Your task to perform on an android device: Go to notification settings Image 0: 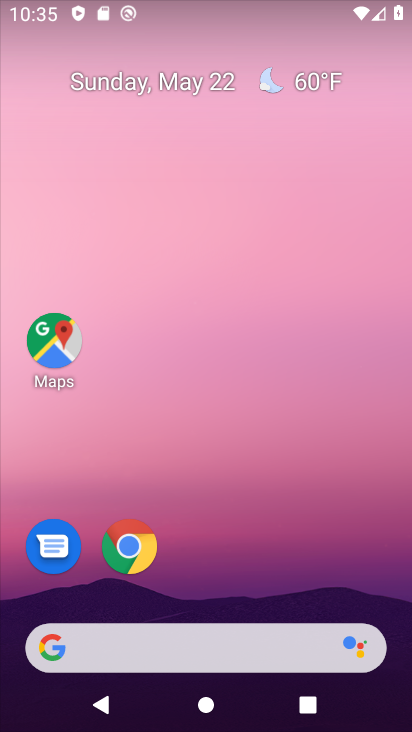
Step 0: drag from (226, 416) to (223, 232)
Your task to perform on an android device: Go to notification settings Image 1: 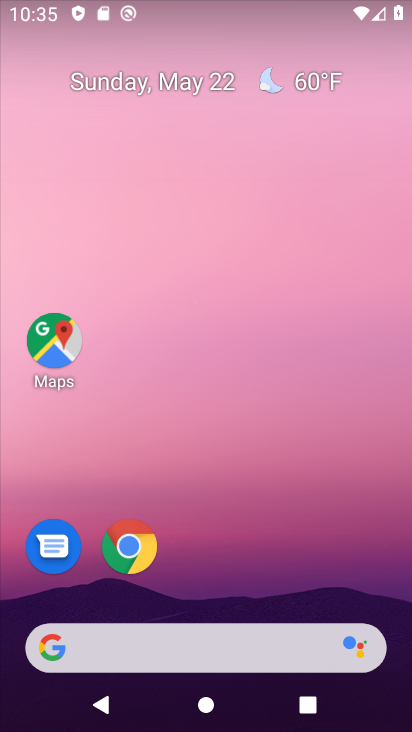
Step 1: drag from (226, 720) to (221, 63)
Your task to perform on an android device: Go to notification settings Image 2: 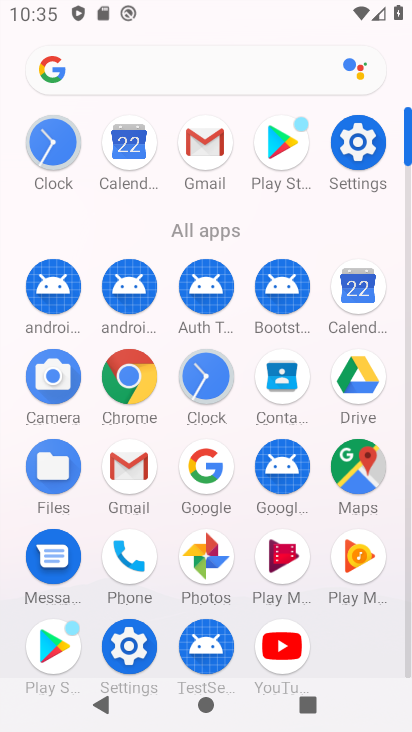
Step 2: click (352, 144)
Your task to perform on an android device: Go to notification settings Image 3: 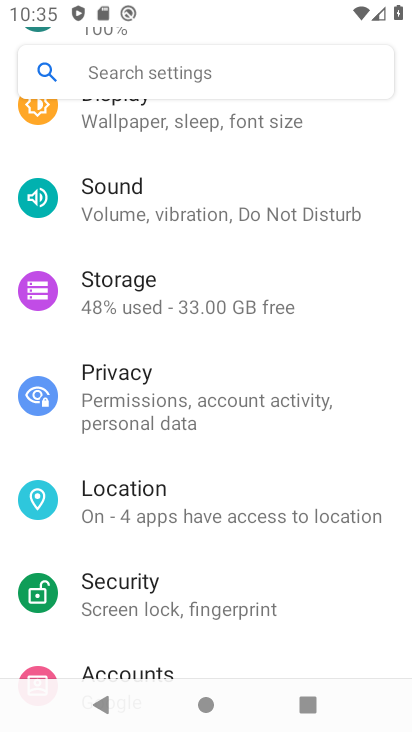
Step 3: drag from (144, 239) to (145, 589)
Your task to perform on an android device: Go to notification settings Image 4: 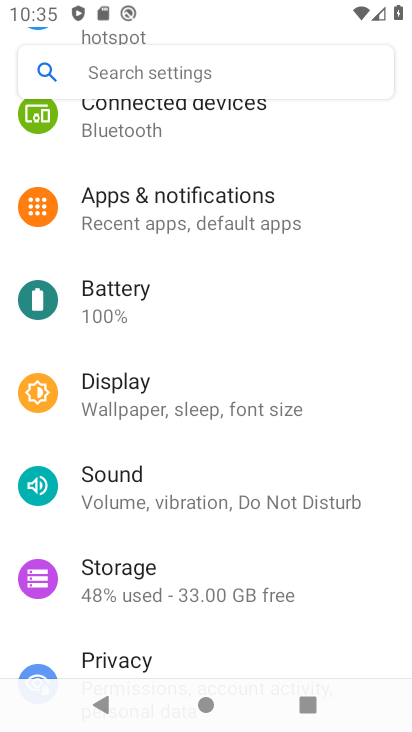
Step 4: click (175, 203)
Your task to perform on an android device: Go to notification settings Image 5: 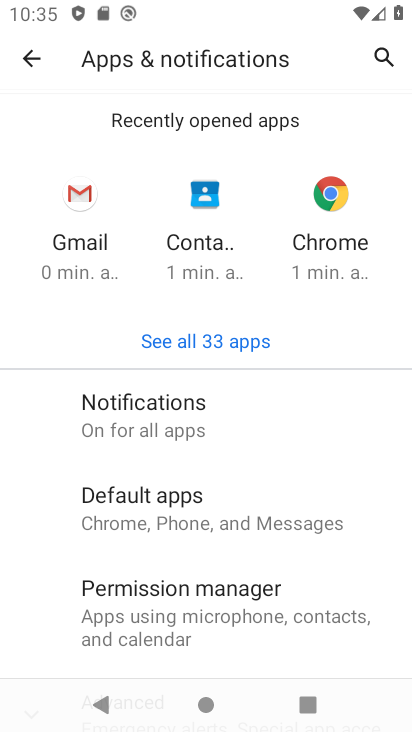
Step 5: click (154, 437)
Your task to perform on an android device: Go to notification settings Image 6: 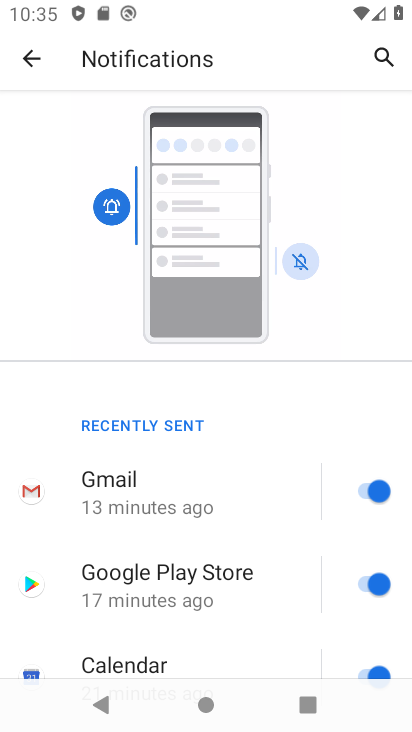
Step 6: task complete